Your task to perform on an android device: open chrome privacy settings Image 0: 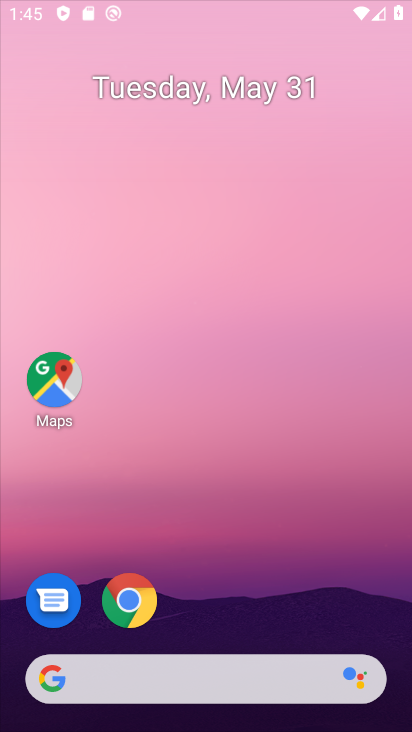
Step 0: press home button
Your task to perform on an android device: open chrome privacy settings Image 1: 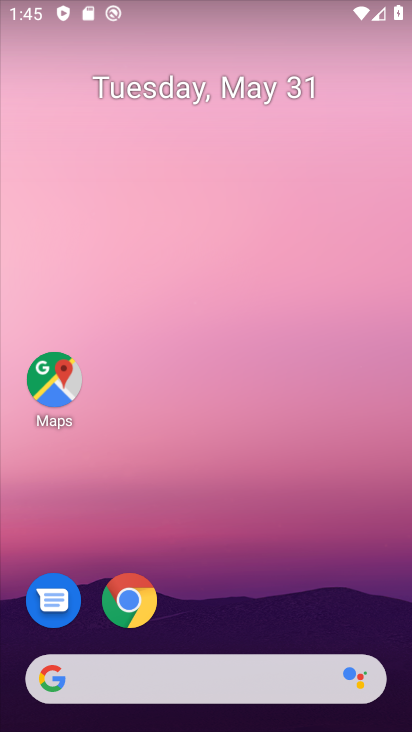
Step 1: click (126, 592)
Your task to perform on an android device: open chrome privacy settings Image 2: 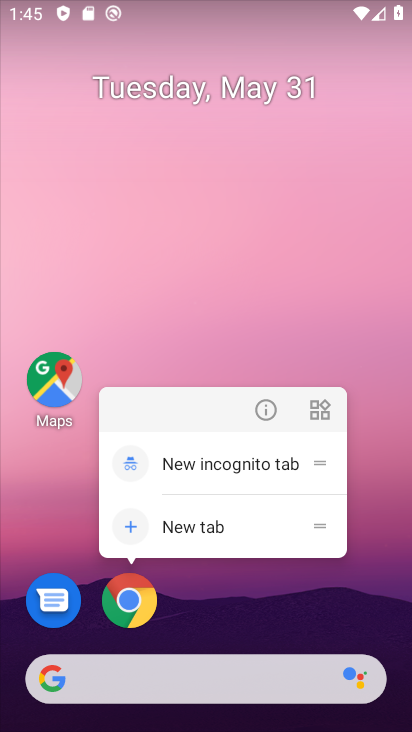
Step 2: click (127, 591)
Your task to perform on an android device: open chrome privacy settings Image 3: 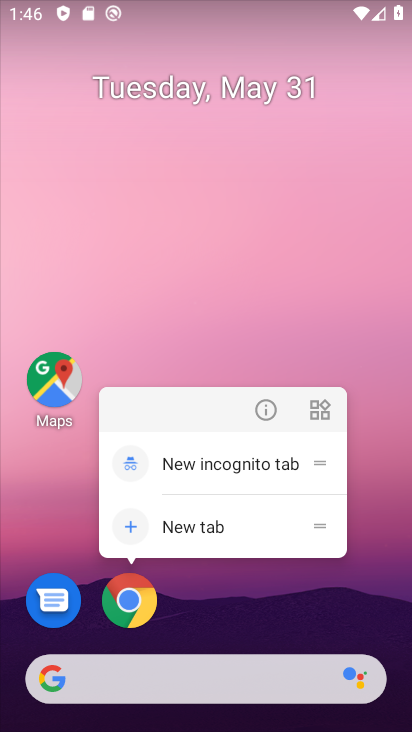
Step 3: click (127, 591)
Your task to perform on an android device: open chrome privacy settings Image 4: 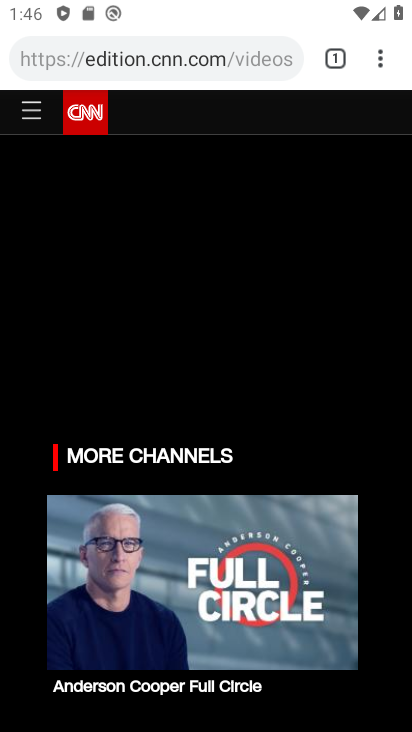
Step 4: click (378, 53)
Your task to perform on an android device: open chrome privacy settings Image 5: 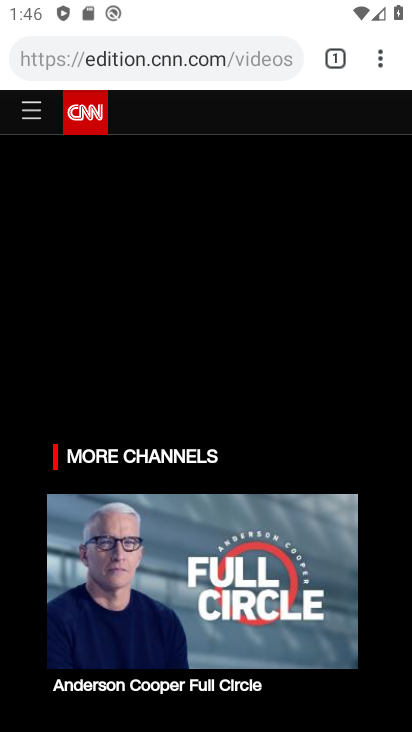
Step 5: click (385, 66)
Your task to perform on an android device: open chrome privacy settings Image 6: 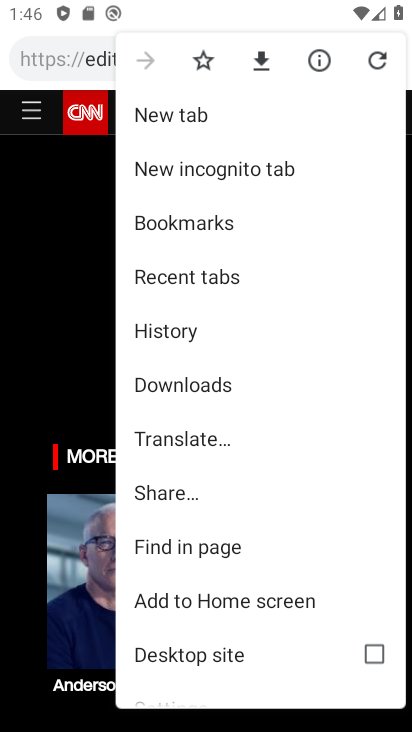
Step 6: drag from (235, 624) to (248, 147)
Your task to perform on an android device: open chrome privacy settings Image 7: 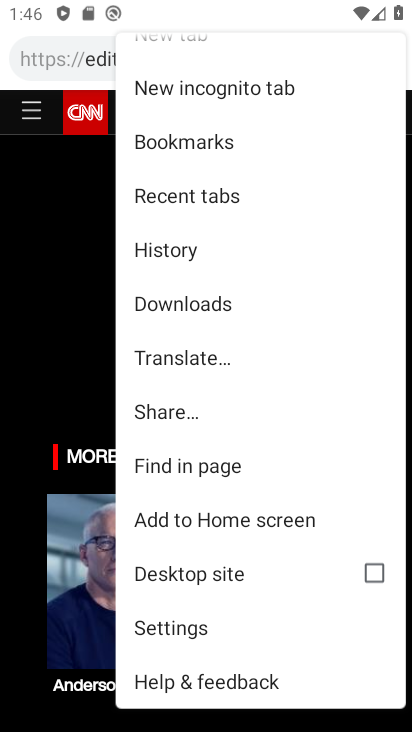
Step 7: click (214, 628)
Your task to perform on an android device: open chrome privacy settings Image 8: 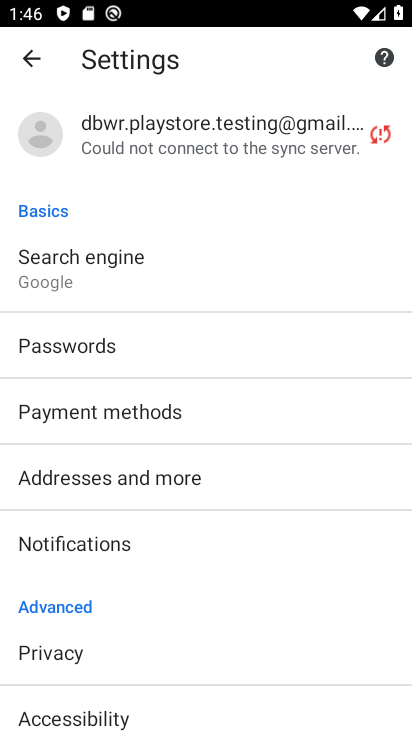
Step 8: click (136, 659)
Your task to perform on an android device: open chrome privacy settings Image 9: 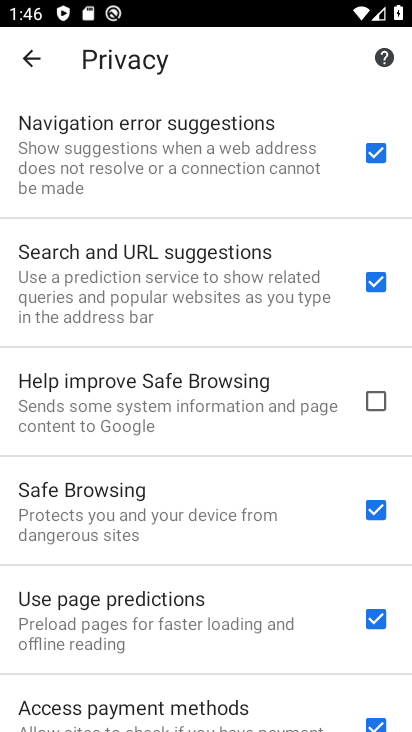
Step 9: task complete